Your task to perform on an android device: Open battery settings Image 0: 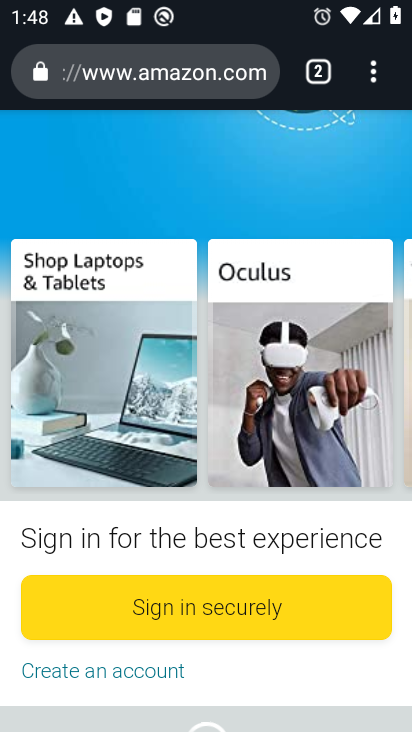
Step 0: press home button
Your task to perform on an android device: Open battery settings Image 1: 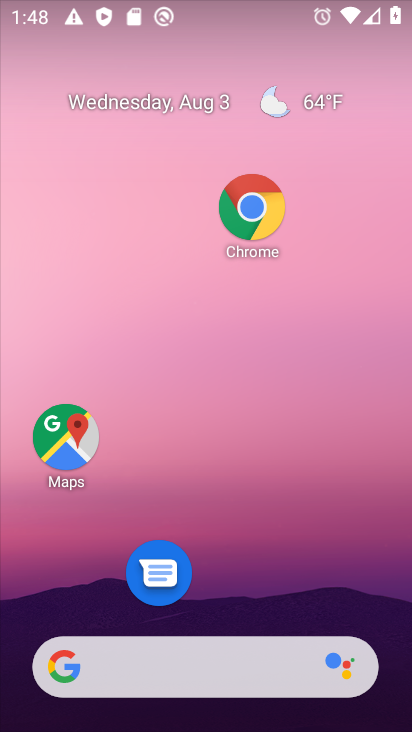
Step 1: drag from (189, 684) to (307, 162)
Your task to perform on an android device: Open battery settings Image 2: 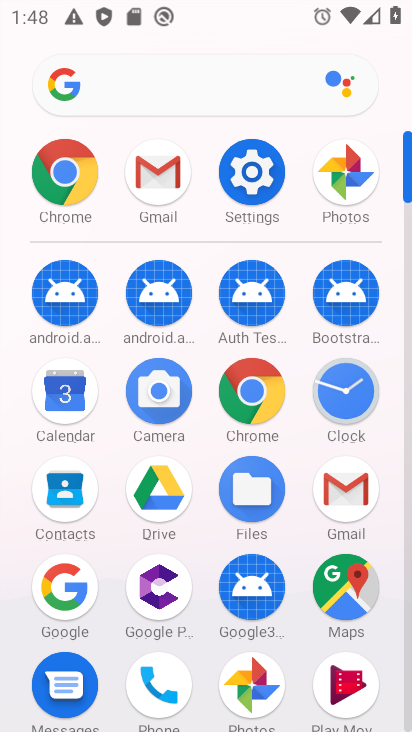
Step 2: click (267, 190)
Your task to perform on an android device: Open battery settings Image 3: 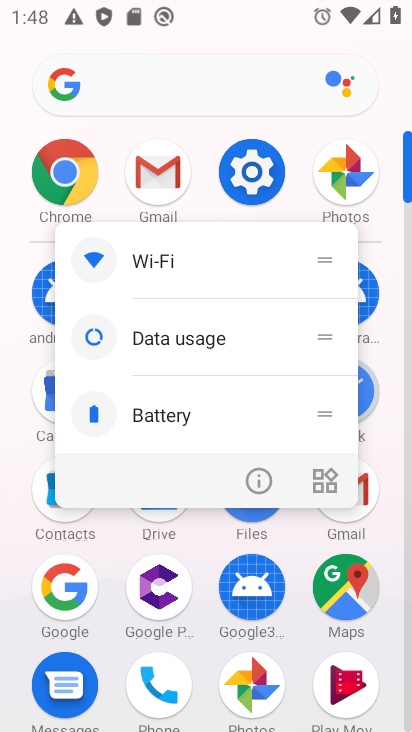
Step 3: click (266, 158)
Your task to perform on an android device: Open battery settings Image 4: 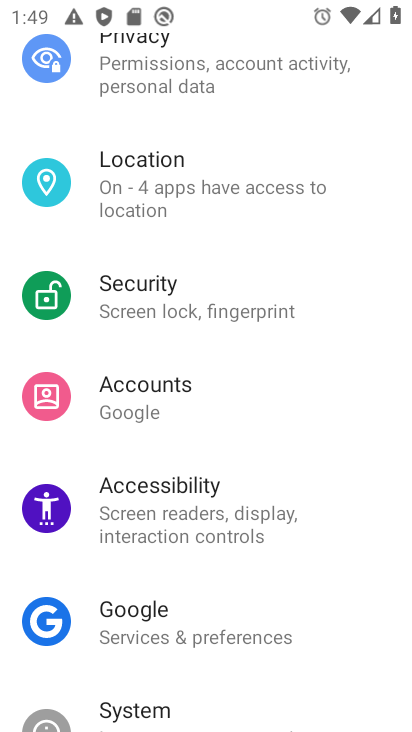
Step 4: drag from (234, 208) to (181, 573)
Your task to perform on an android device: Open battery settings Image 5: 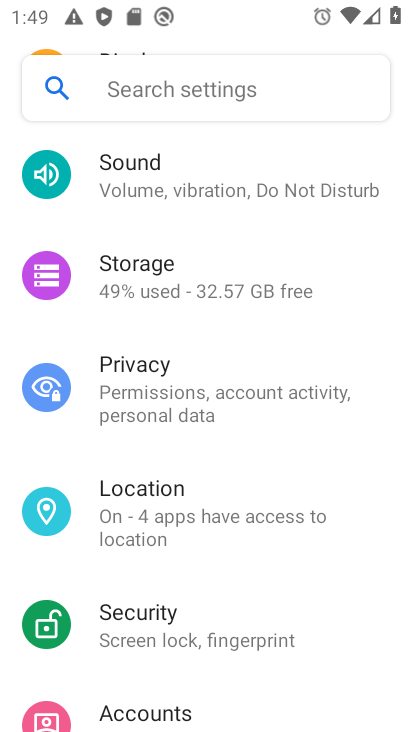
Step 5: drag from (213, 314) to (190, 607)
Your task to perform on an android device: Open battery settings Image 6: 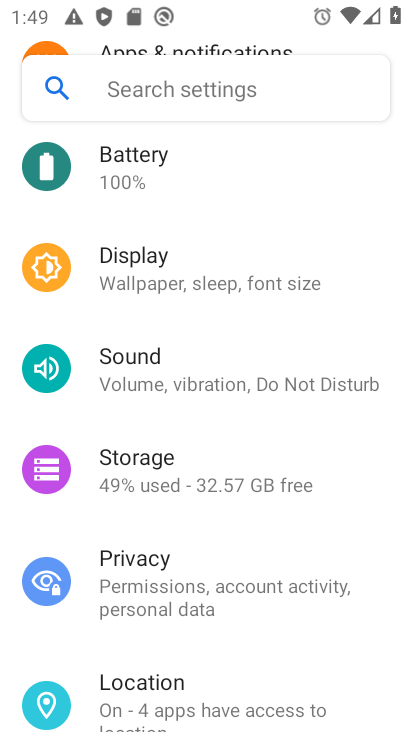
Step 6: drag from (183, 302) to (173, 503)
Your task to perform on an android device: Open battery settings Image 7: 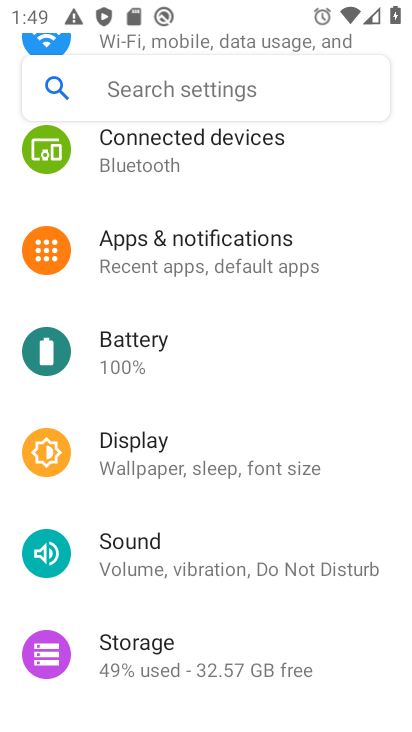
Step 7: click (167, 331)
Your task to perform on an android device: Open battery settings Image 8: 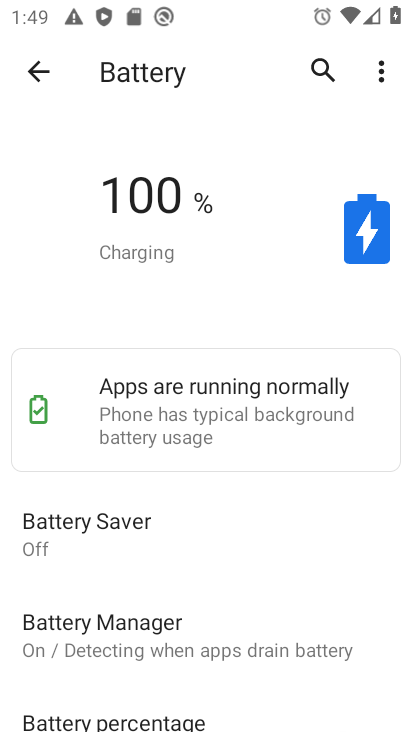
Step 8: task complete